Your task to perform on an android device: Search for the best value 4K TV on Best Buy Image 0: 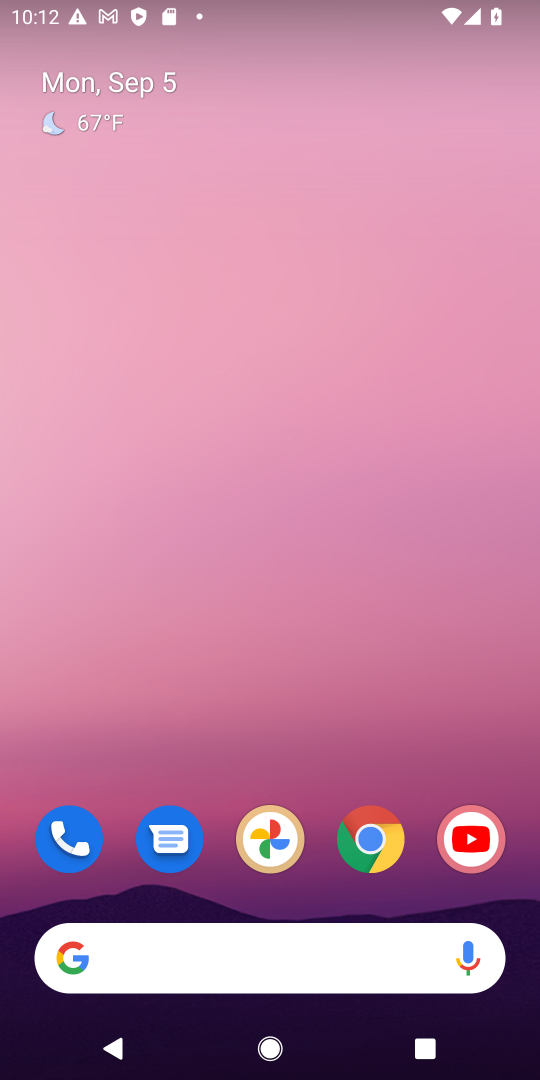
Step 0: drag from (322, 878) to (334, 224)
Your task to perform on an android device: Search for the best value 4K TV on Best Buy Image 1: 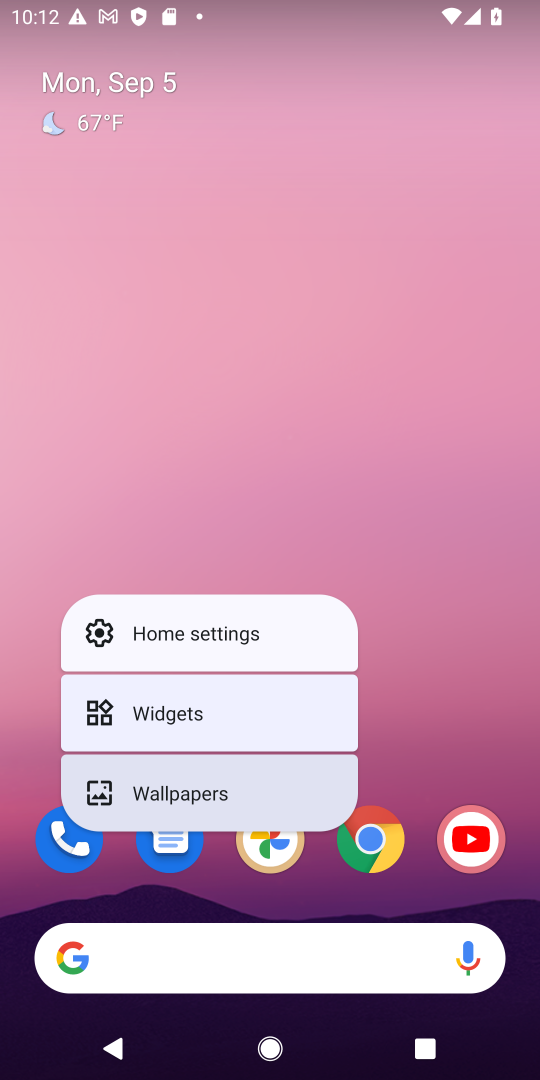
Step 1: click (364, 785)
Your task to perform on an android device: Search for the best value 4K TV on Best Buy Image 2: 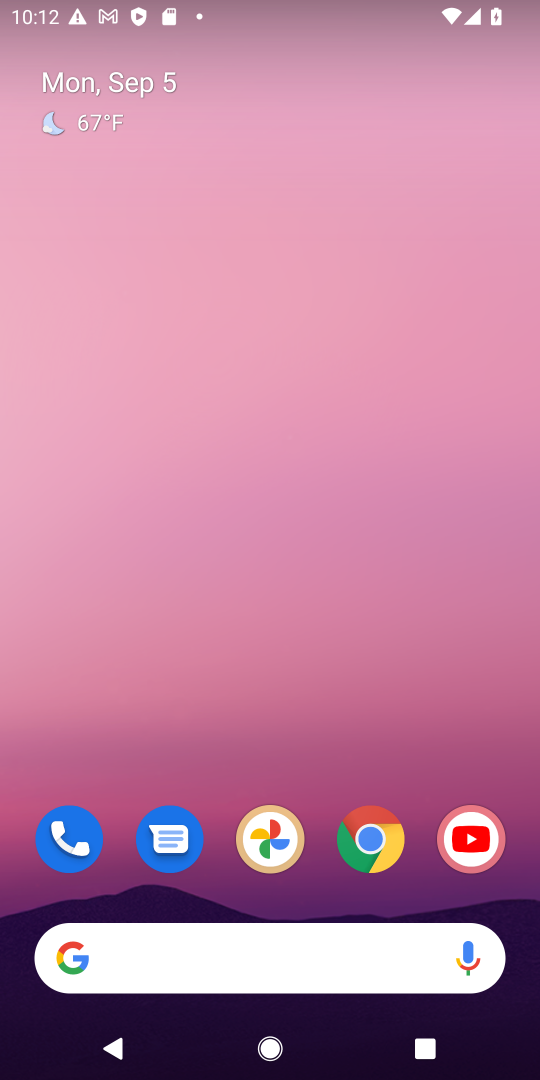
Step 2: drag from (202, 948) to (181, 284)
Your task to perform on an android device: Search for the best value 4K TV on Best Buy Image 3: 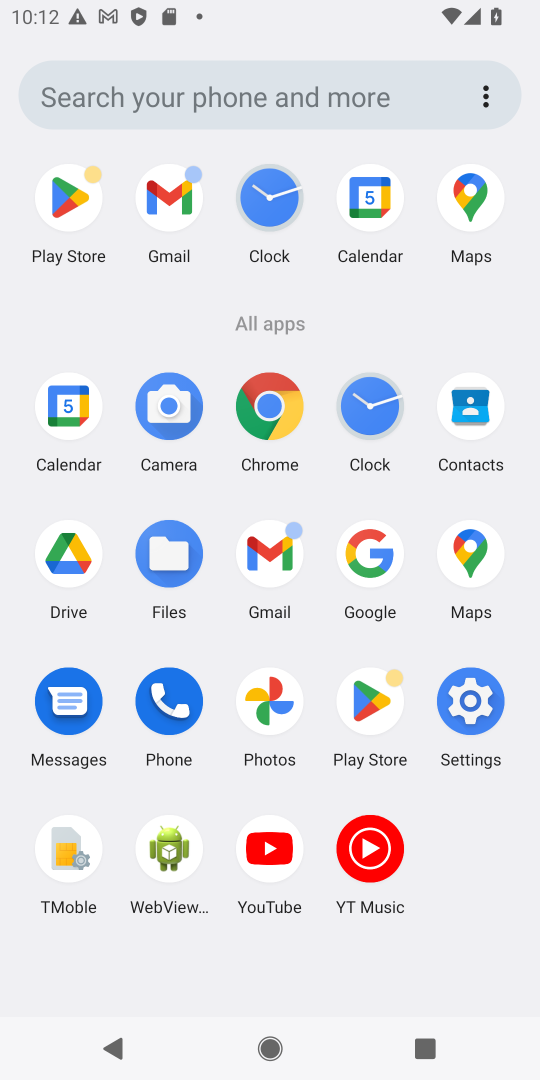
Step 3: click (360, 558)
Your task to perform on an android device: Search for the best value 4K TV on Best Buy Image 4: 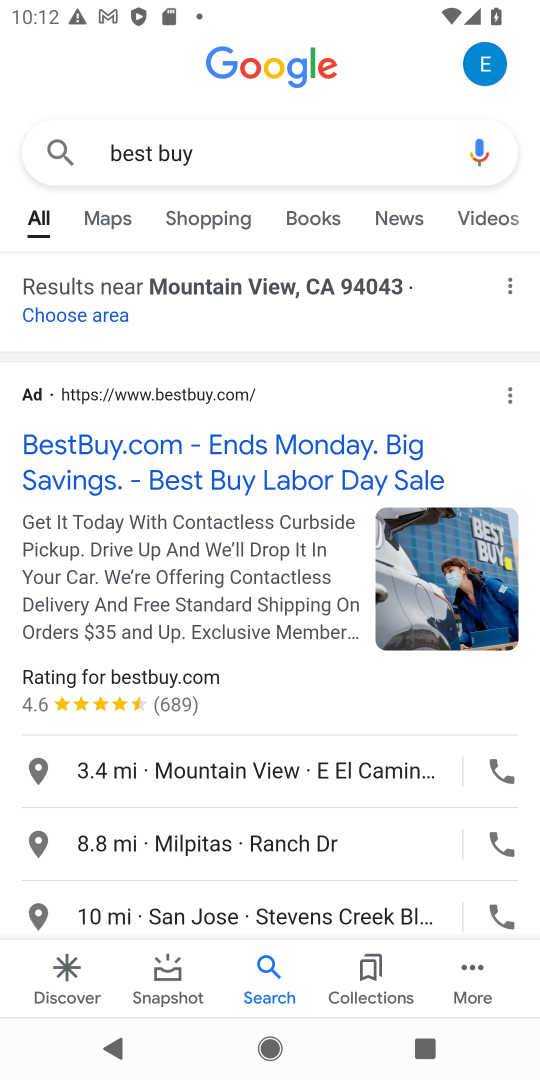
Step 4: click (220, 466)
Your task to perform on an android device: Search for the best value 4K TV on Best Buy Image 5: 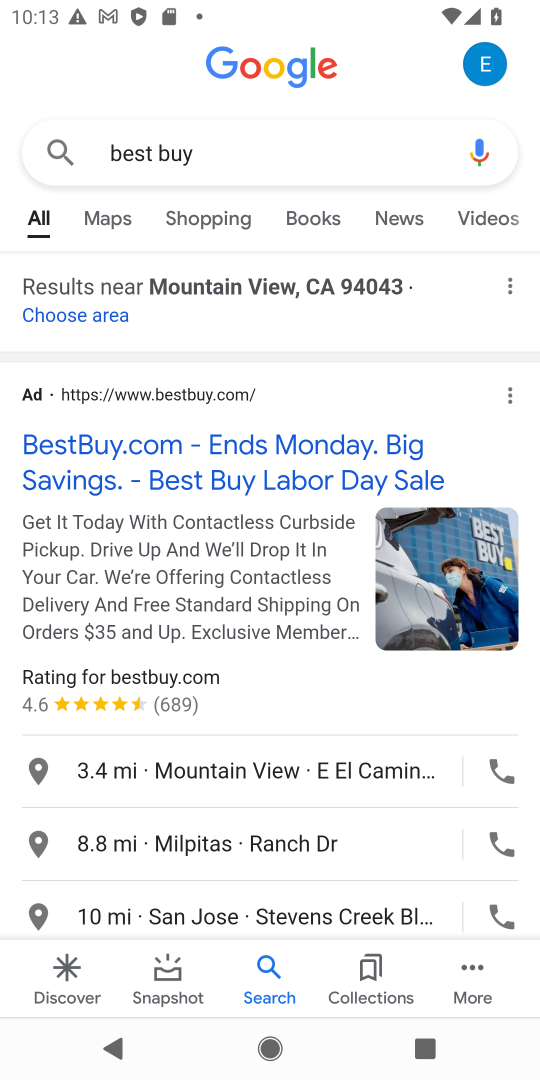
Step 5: click (107, 451)
Your task to perform on an android device: Search for the best value 4K TV on Best Buy Image 6: 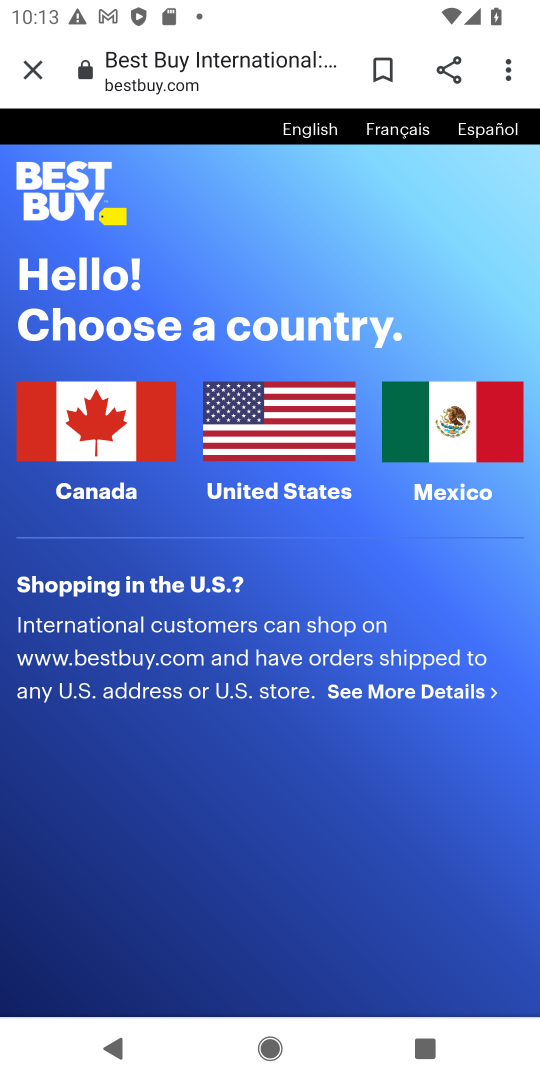
Step 6: task complete